Your task to perform on an android device: see creations saved in the google photos Image 0: 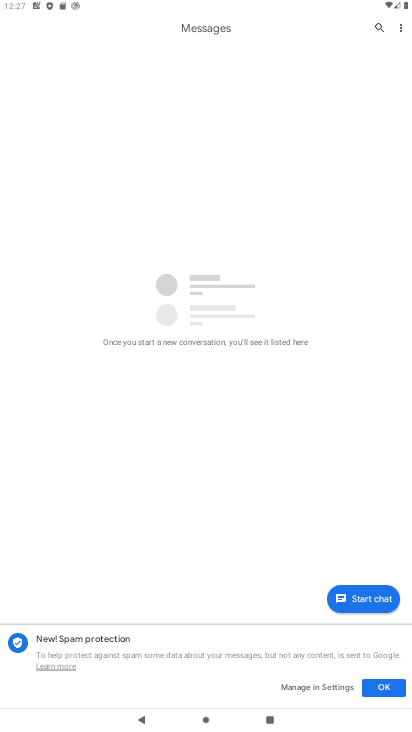
Step 0: press home button
Your task to perform on an android device: see creations saved in the google photos Image 1: 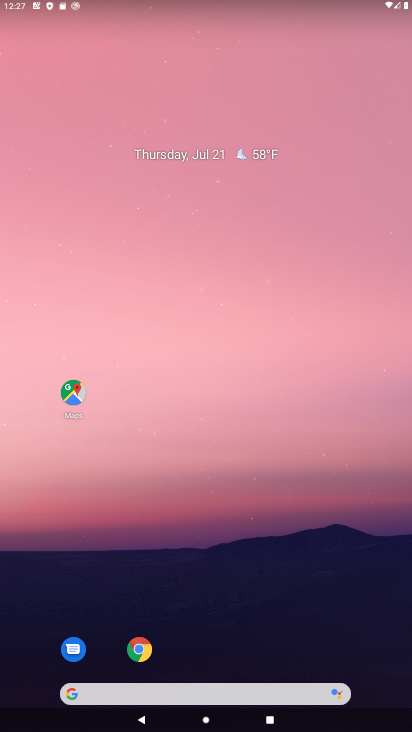
Step 1: drag from (376, 670) to (303, 128)
Your task to perform on an android device: see creations saved in the google photos Image 2: 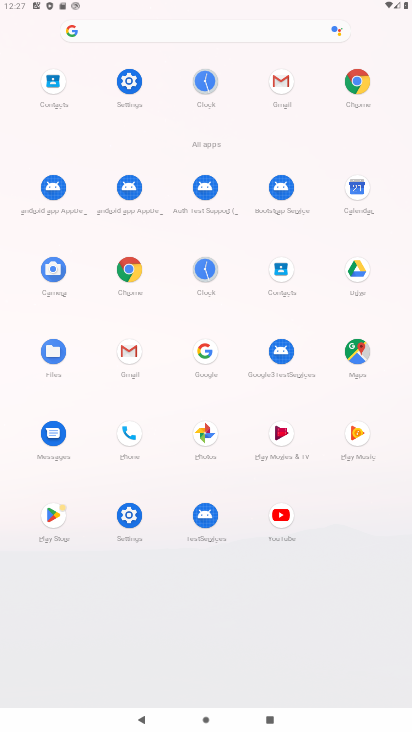
Step 2: click (203, 434)
Your task to perform on an android device: see creations saved in the google photos Image 3: 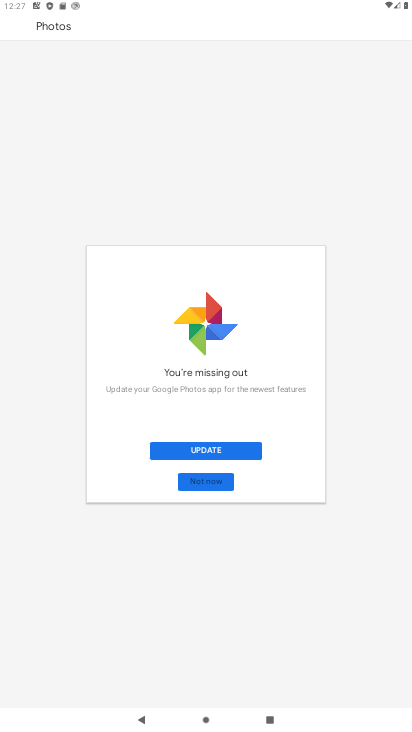
Step 3: click (201, 447)
Your task to perform on an android device: see creations saved in the google photos Image 4: 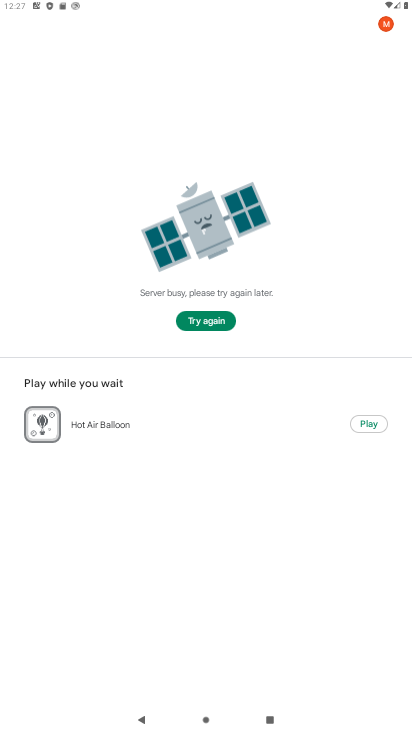
Step 4: click (196, 315)
Your task to perform on an android device: see creations saved in the google photos Image 5: 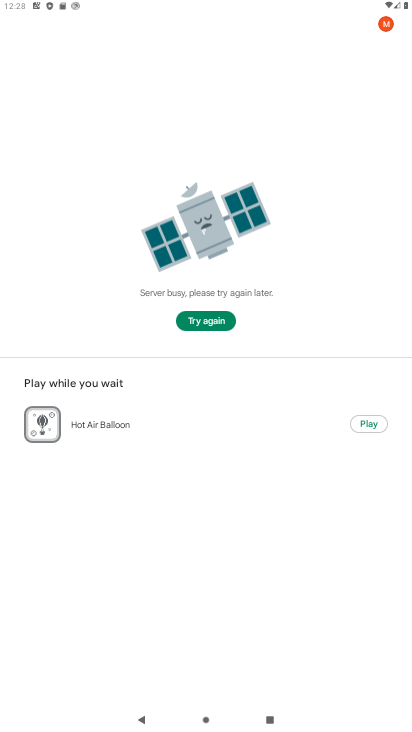
Step 5: task complete